Your task to perform on an android device: Search for sushi restaurants on Maps Image 0: 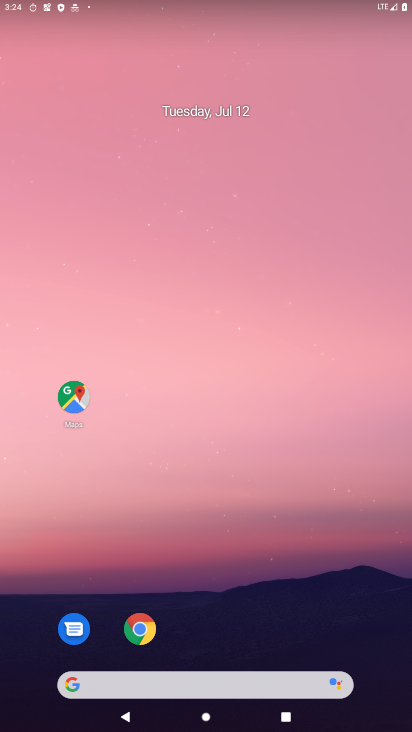
Step 0: drag from (307, 623) to (301, 98)
Your task to perform on an android device: Search for sushi restaurants on Maps Image 1: 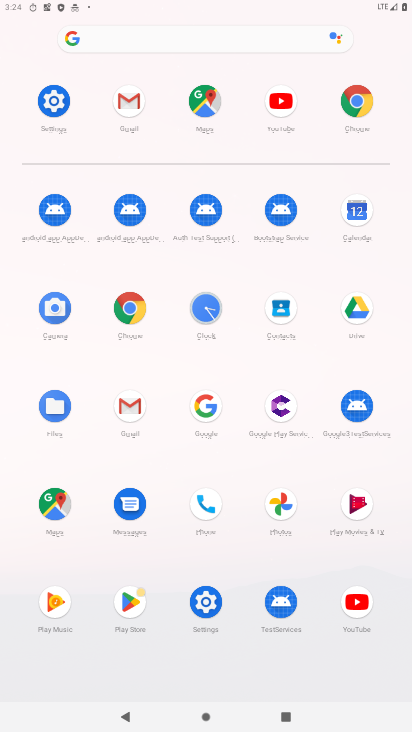
Step 1: click (56, 493)
Your task to perform on an android device: Search for sushi restaurants on Maps Image 2: 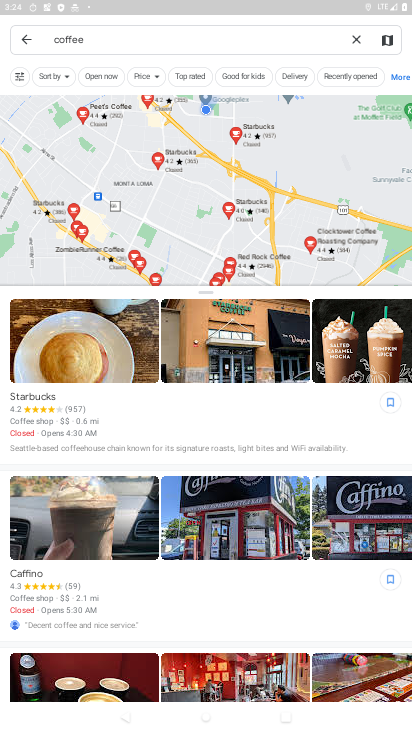
Step 2: click (356, 39)
Your task to perform on an android device: Search for sushi restaurants on Maps Image 3: 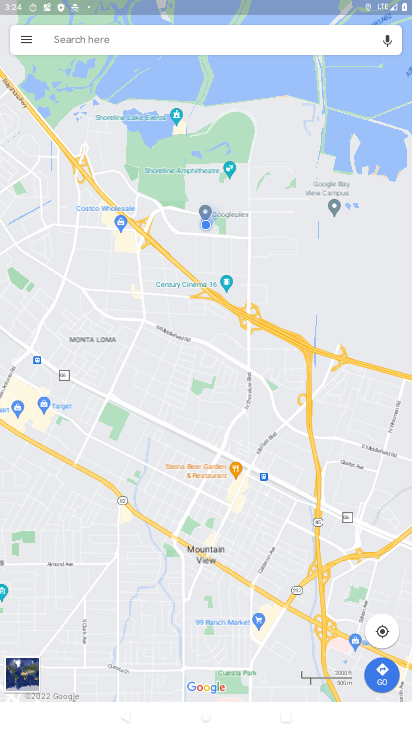
Step 3: click (260, 34)
Your task to perform on an android device: Search for sushi restaurants on Maps Image 4: 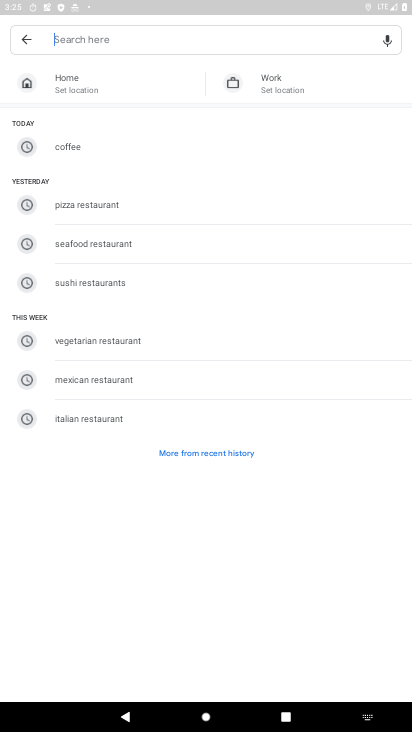
Step 4: type "sushi restaurants"
Your task to perform on an android device: Search for sushi restaurants on Maps Image 5: 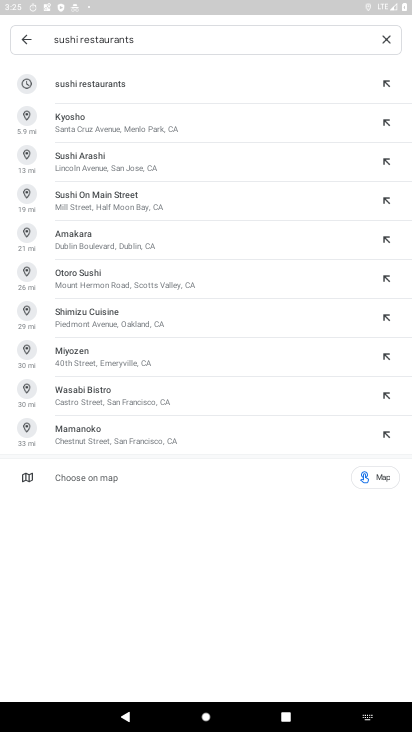
Step 5: click (105, 83)
Your task to perform on an android device: Search for sushi restaurants on Maps Image 6: 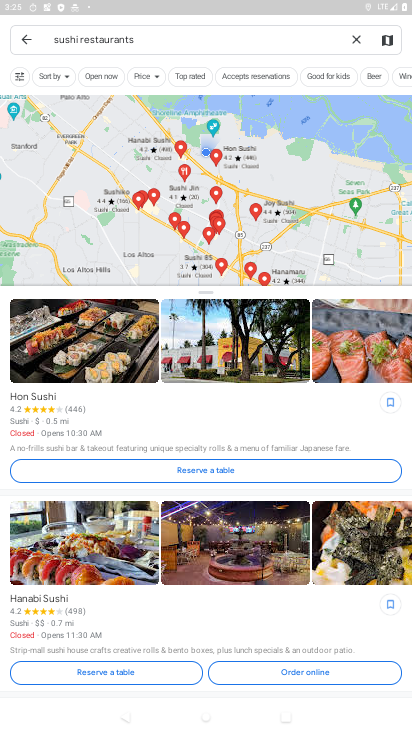
Step 6: task complete